Your task to perform on an android device: turn notification dots on Image 0: 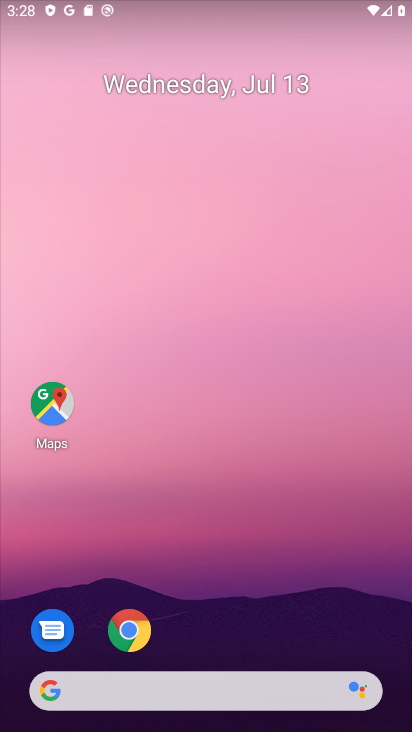
Step 0: drag from (177, 574) to (179, 323)
Your task to perform on an android device: turn notification dots on Image 1: 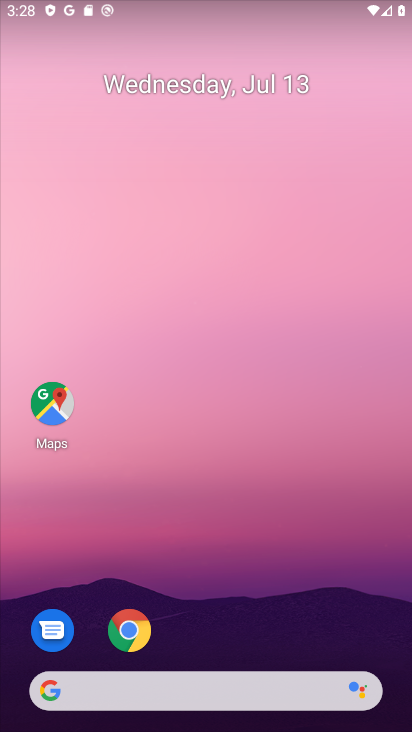
Step 1: drag from (204, 542) to (190, 258)
Your task to perform on an android device: turn notification dots on Image 2: 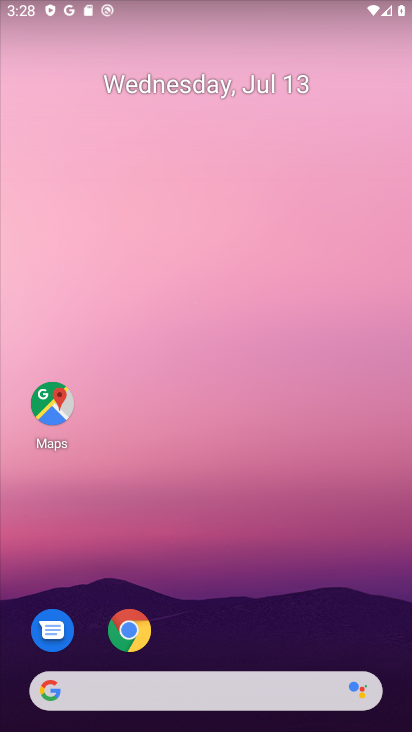
Step 2: drag from (193, 547) to (179, 201)
Your task to perform on an android device: turn notification dots on Image 3: 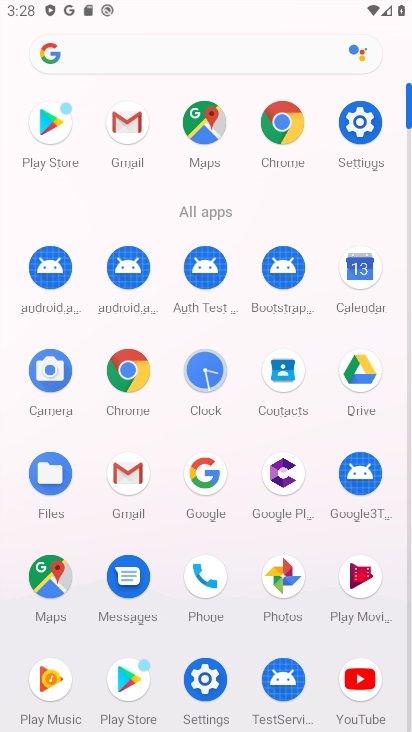
Step 3: click (349, 126)
Your task to perform on an android device: turn notification dots on Image 4: 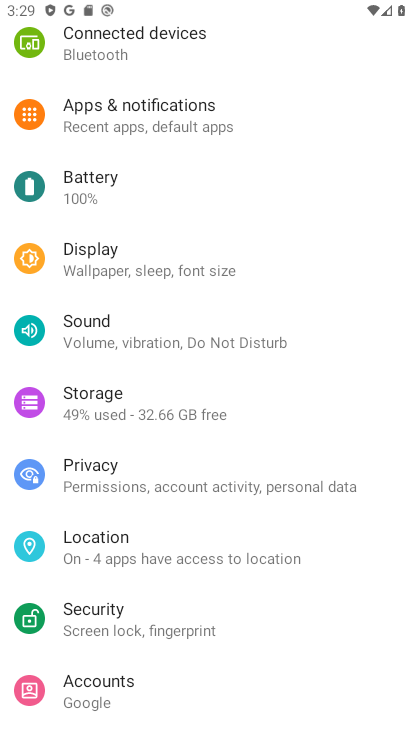
Step 4: click (256, 121)
Your task to perform on an android device: turn notification dots on Image 5: 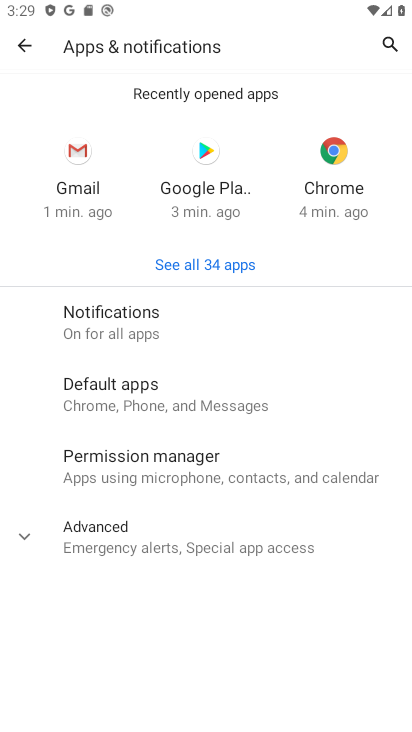
Step 5: click (103, 323)
Your task to perform on an android device: turn notification dots on Image 6: 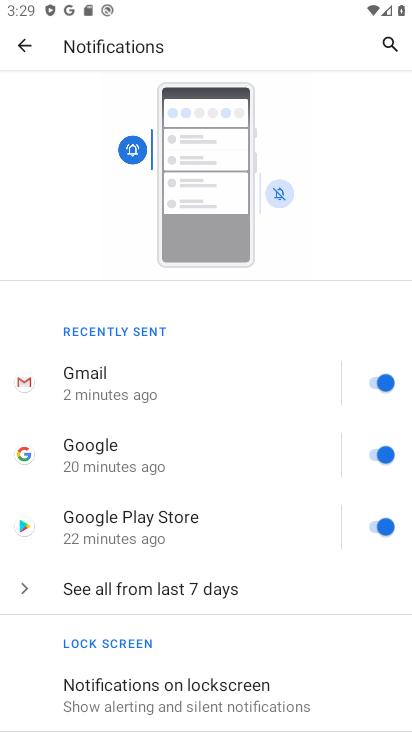
Step 6: drag from (143, 528) to (159, 299)
Your task to perform on an android device: turn notification dots on Image 7: 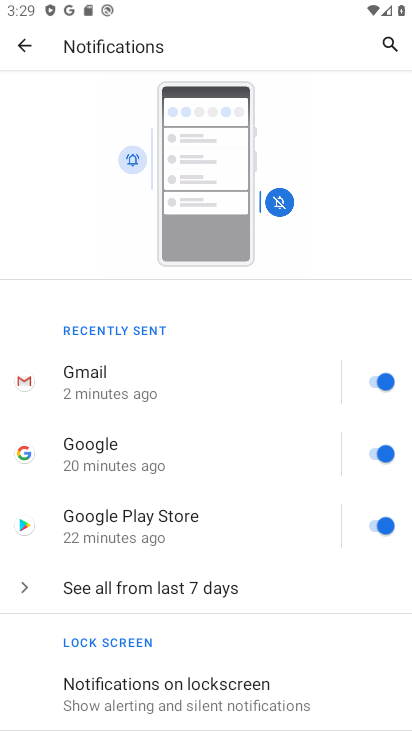
Step 7: drag from (176, 636) to (183, 395)
Your task to perform on an android device: turn notification dots on Image 8: 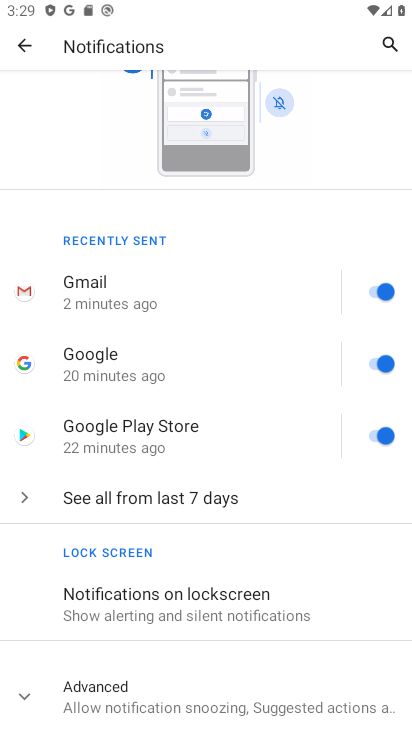
Step 8: click (83, 698)
Your task to perform on an android device: turn notification dots on Image 9: 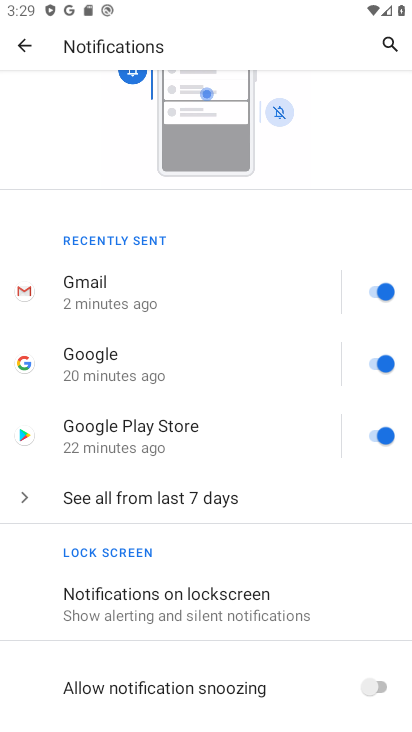
Step 9: drag from (138, 615) to (147, 137)
Your task to perform on an android device: turn notification dots on Image 10: 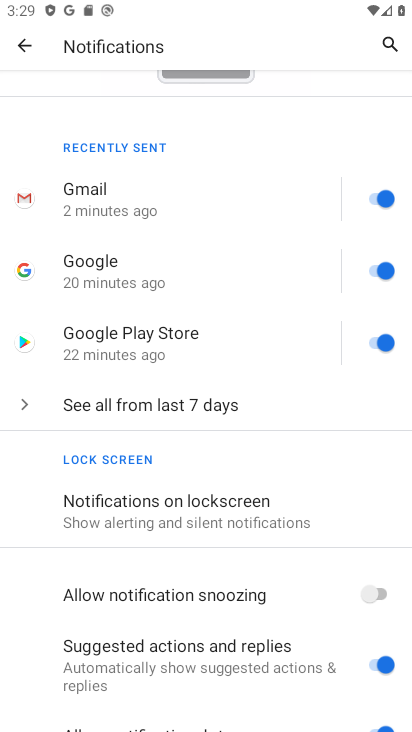
Step 10: drag from (250, 627) to (262, 236)
Your task to perform on an android device: turn notification dots on Image 11: 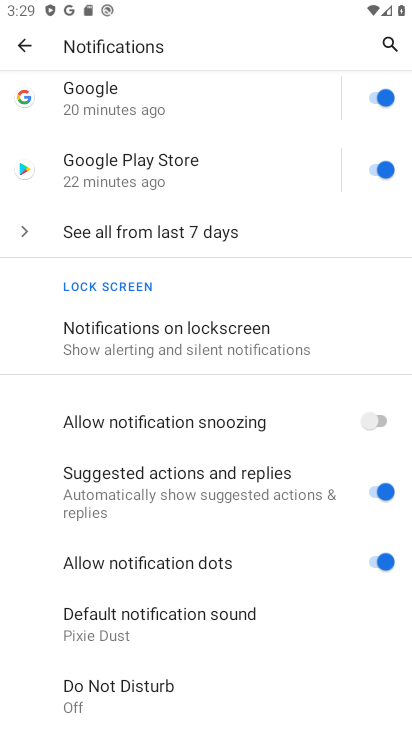
Step 11: click (377, 560)
Your task to perform on an android device: turn notification dots on Image 12: 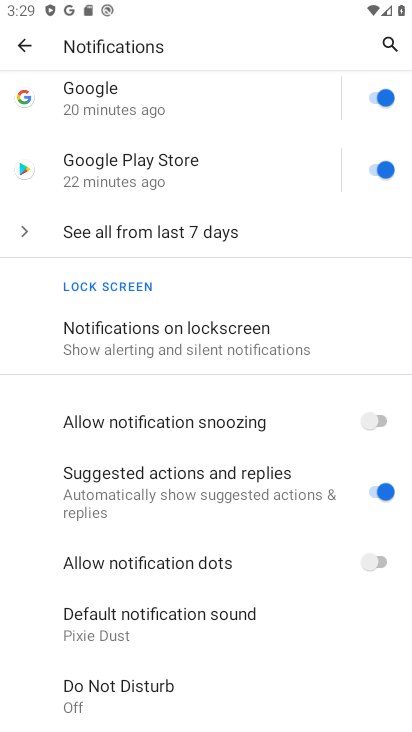
Step 12: click (385, 561)
Your task to perform on an android device: turn notification dots on Image 13: 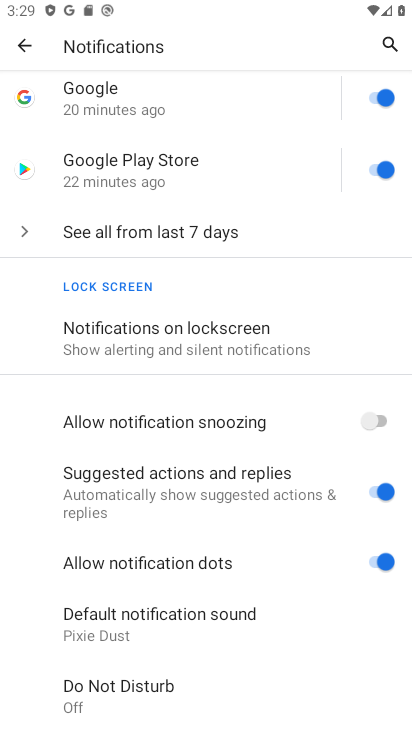
Step 13: task complete